Your task to perform on an android device: What's the weather today? Image 0: 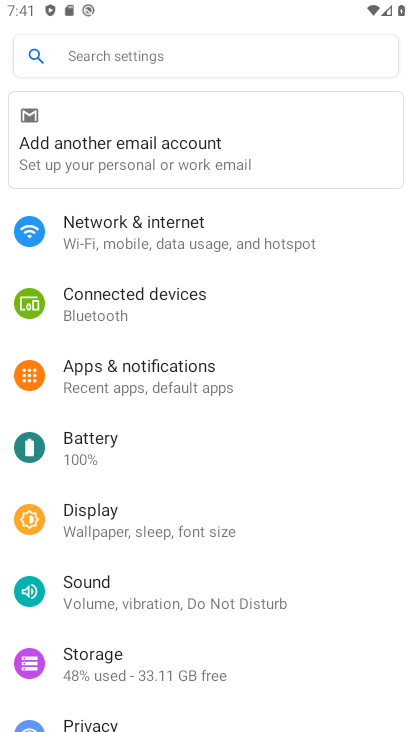
Step 0: press home button
Your task to perform on an android device: What's the weather today? Image 1: 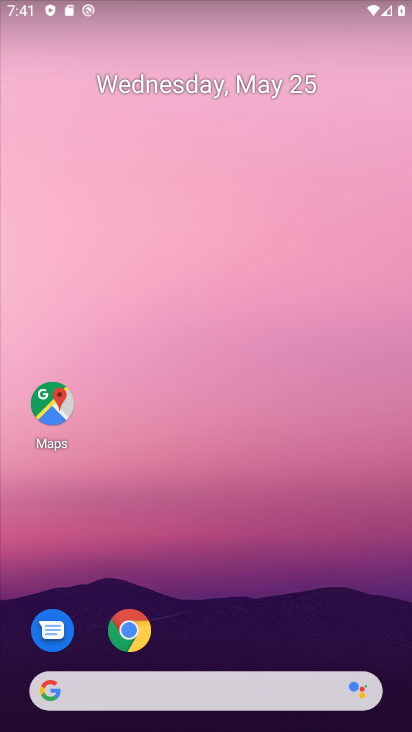
Step 1: drag from (202, 618) to (199, 27)
Your task to perform on an android device: What's the weather today? Image 2: 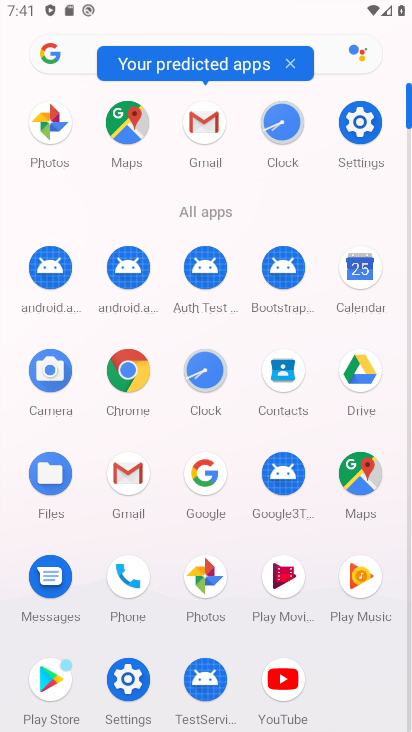
Step 2: click (204, 467)
Your task to perform on an android device: What's the weather today? Image 3: 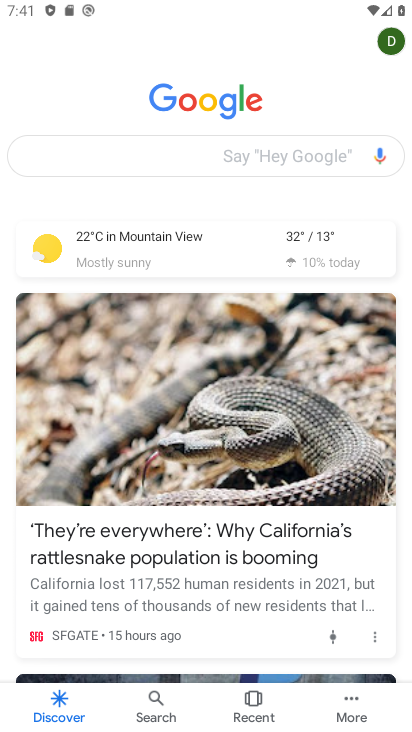
Step 3: click (166, 255)
Your task to perform on an android device: What's the weather today? Image 4: 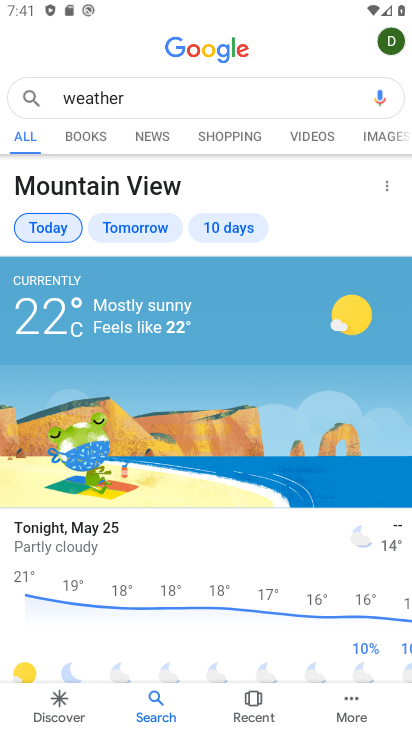
Step 4: task complete